Your task to perform on an android device: Go to network settings Image 0: 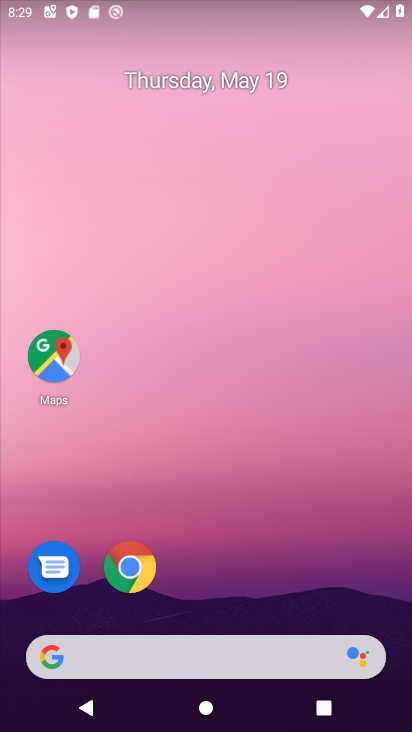
Step 0: drag from (275, 604) to (306, 4)
Your task to perform on an android device: Go to network settings Image 1: 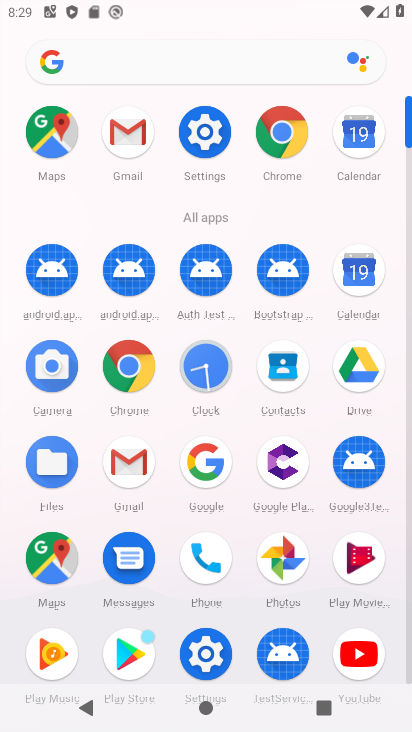
Step 1: click (214, 130)
Your task to perform on an android device: Go to network settings Image 2: 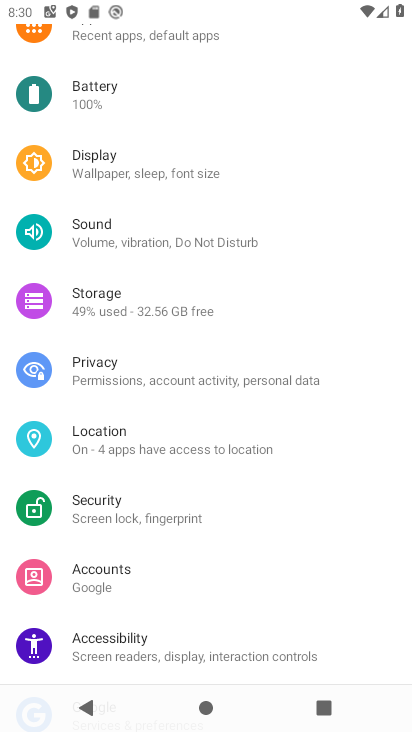
Step 2: drag from (127, 209) to (132, 418)
Your task to perform on an android device: Go to network settings Image 3: 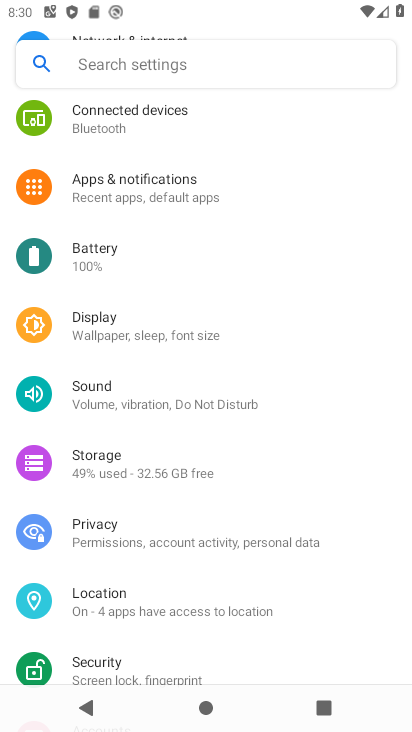
Step 3: drag from (176, 210) to (163, 454)
Your task to perform on an android device: Go to network settings Image 4: 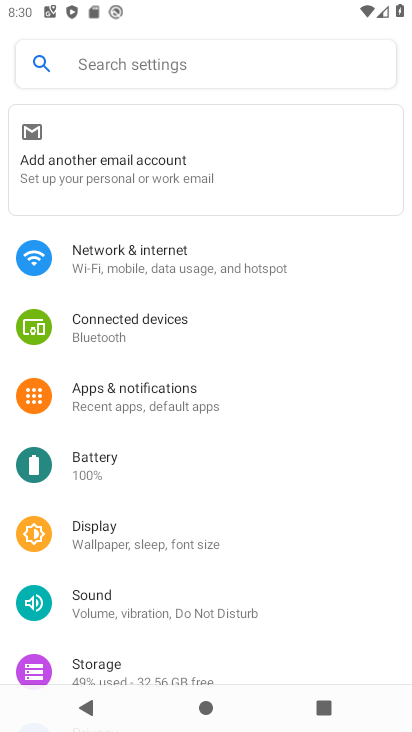
Step 4: click (161, 273)
Your task to perform on an android device: Go to network settings Image 5: 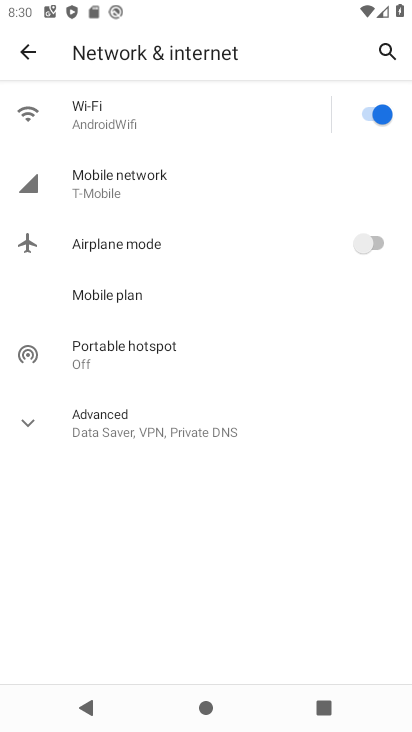
Step 5: task complete